Your task to perform on an android device: all mails in gmail Image 0: 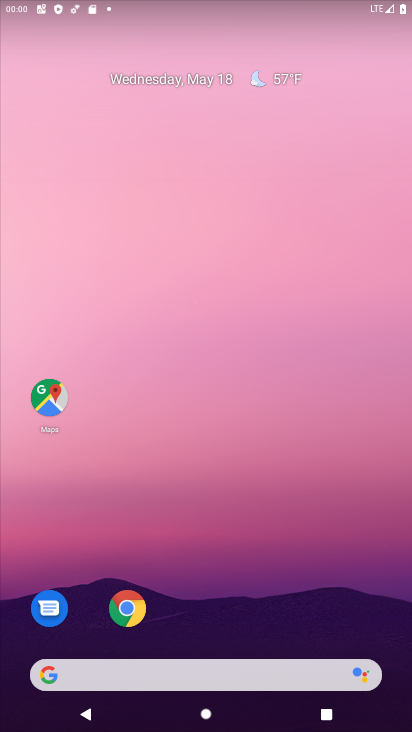
Step 0: drag from (204, 520) to (143, 154)
Your task to perform on an android device: all mails in gmail Image 1: 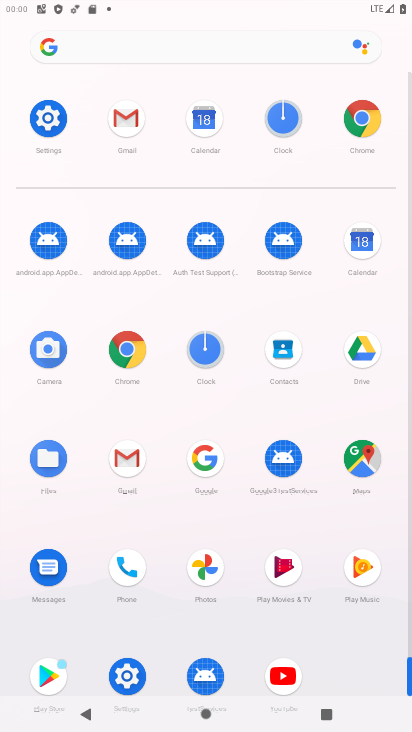
Step 1: click (121, 116)
Your task to perform on an android device: all mails in gmail Image 2: 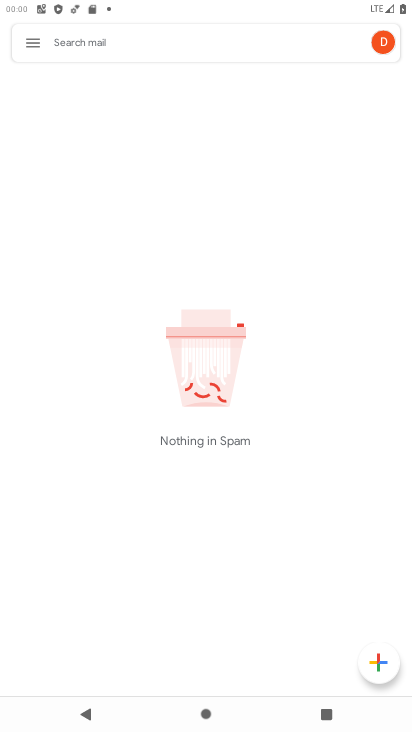
Step 2: click (27, 45)
Your task to perform on an android device: all mails in gmail Image 3: 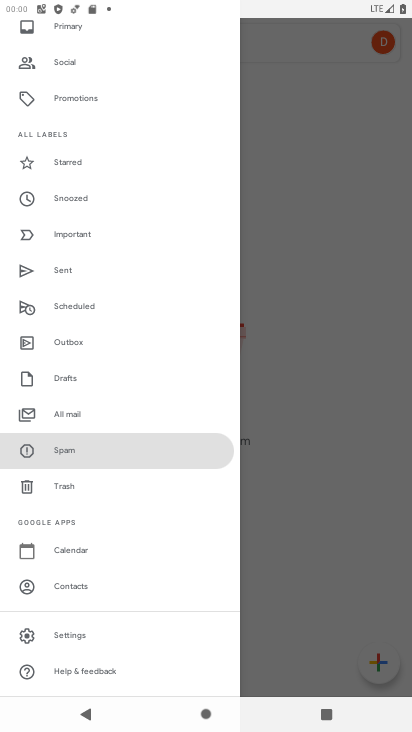
Step 3: drag from (126, 256) to (11, 418)
Your task to perform on an android device: all mails in gmail Image 4: 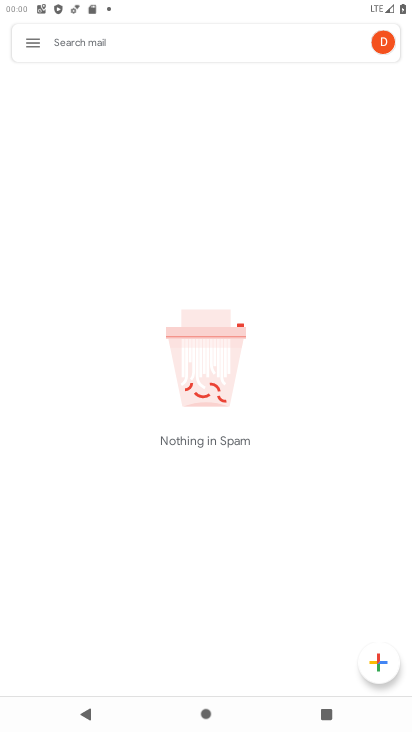
Step 4: drag from (365, 160) to (229, 483)
Your task to perform on an android device: all mails in gmail Image 5: 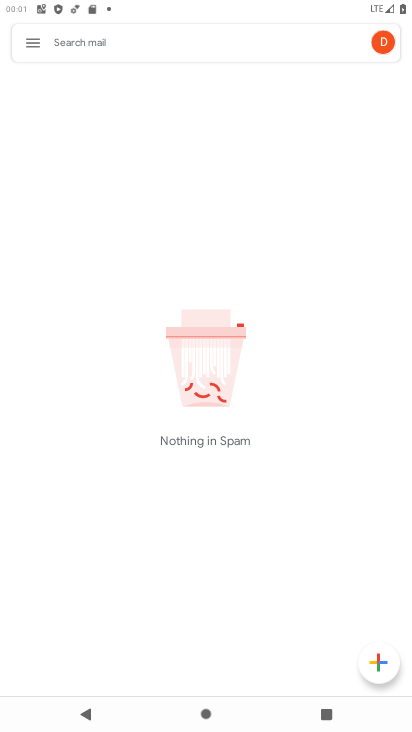
Step 5: click (27, 46)
Your task to perform on an android device: all mails in gmail Image 6: 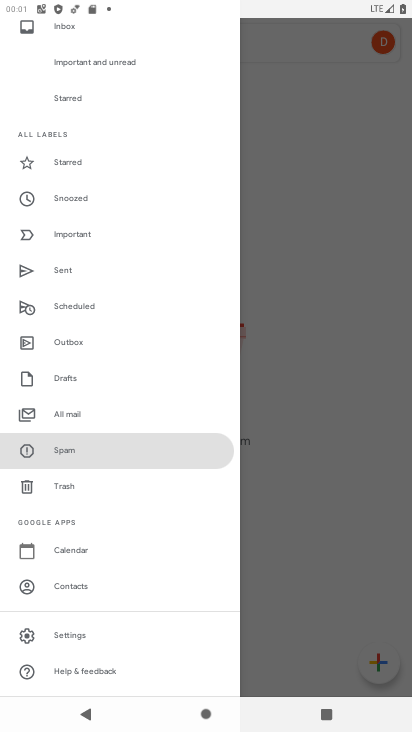
Step 6: click (64, 411)
Your task to perform on an android device: all mails in gmail Image 7: 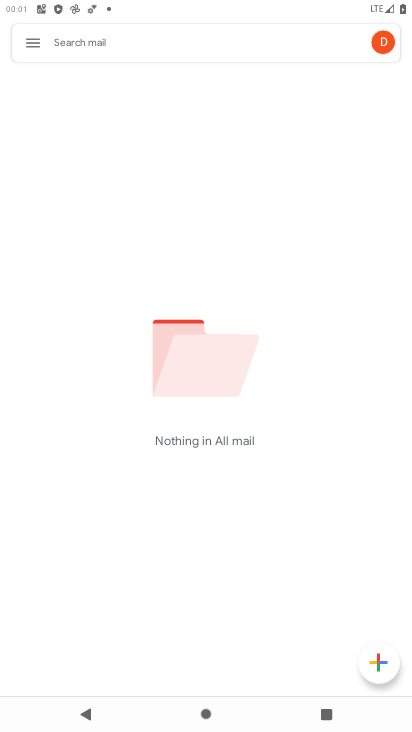
Step 7: task complete